Your task to perform on an android device: turn on bluetooth scan Image 0: 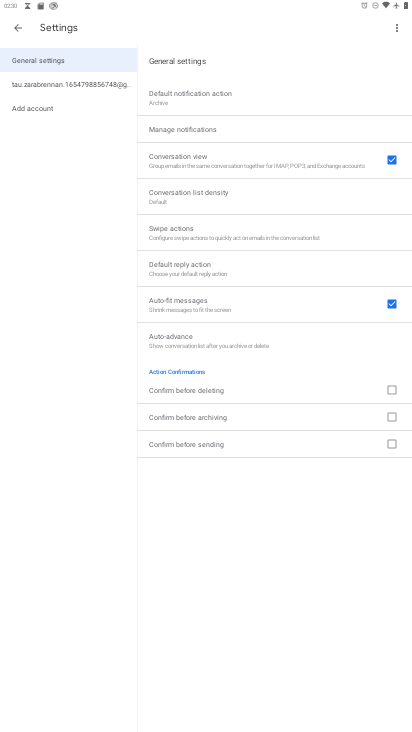
Step 0: press home button
Your task to perform on an android device: turn on bluetooth scan Image 1: 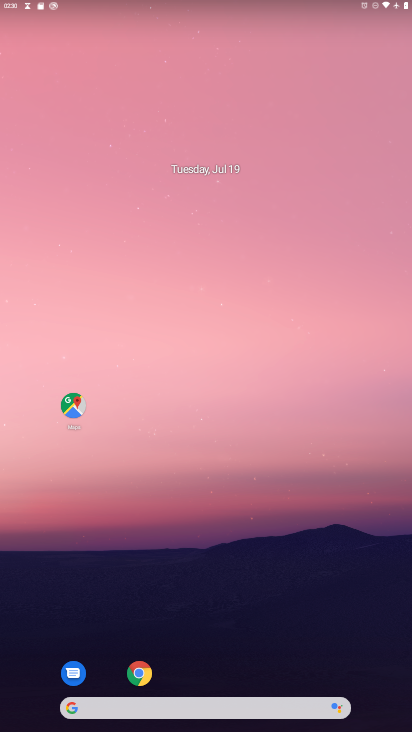
Step 1: drag from (234, 658) to (233, 333)
Your task to perform on an android device: turn on bluetooth scan Image 2: 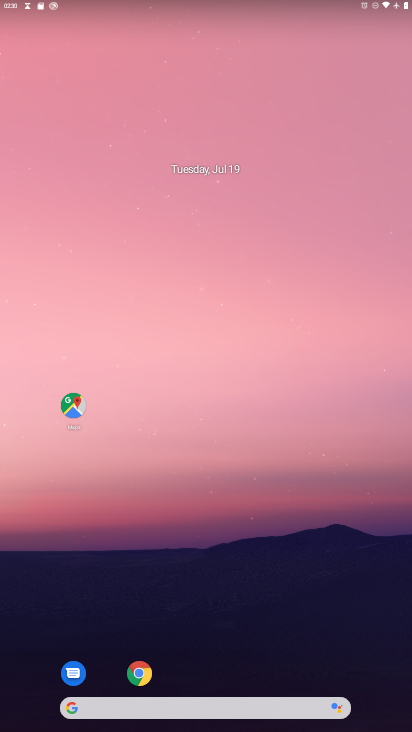
Step 2: drag from (212, 612) to (210, 281)
Your task to perform on an android device: turn on bluetooth scan Image 3: 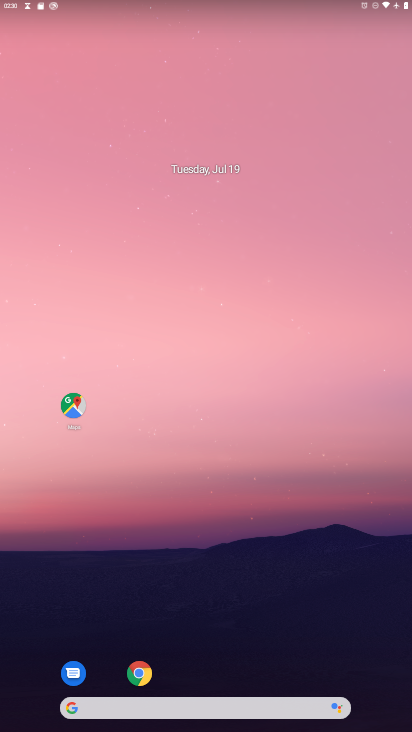
Step 3: drag from (170, 722) to (198, 502)
Your task to perform on an android device: turn on bluetooth scan Image 4: 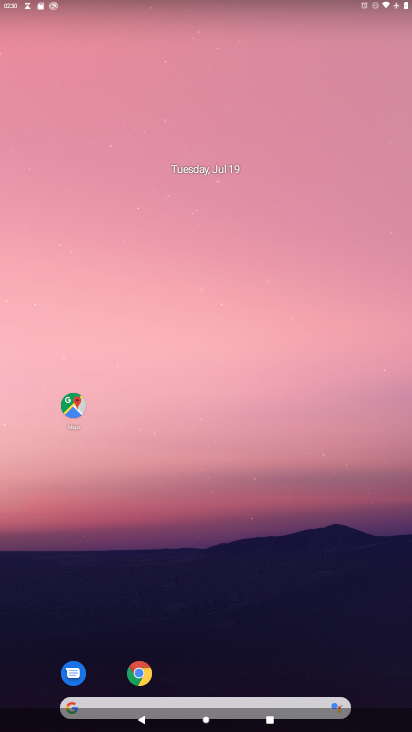
Step 4: drag from (207, 677) to (224, 251)
Your task to perform on an android device: turn on bluetooth scan Image 5: 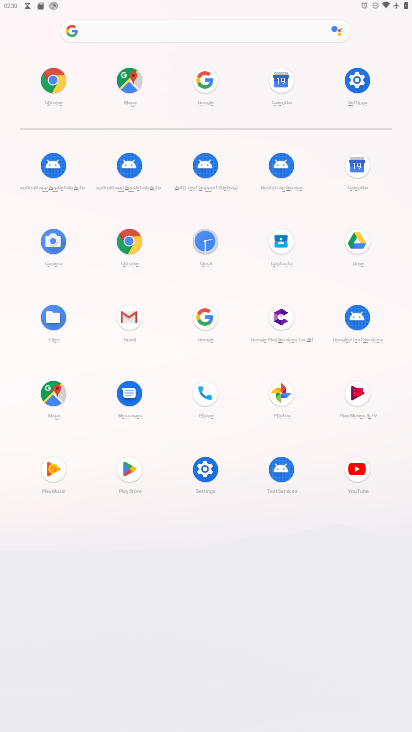
Step 5: click (357, 74)
Your task to perform on an android device: turn on bluetooth scan Image 6: 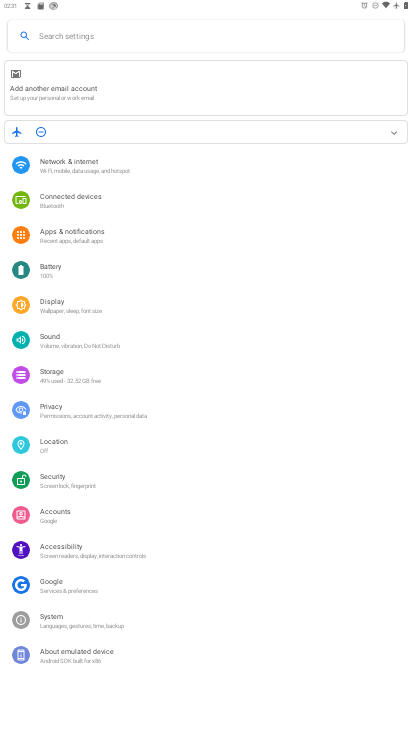
Step 6: click (122, 30)
Your task to perform on an android device: turn on bluetooth scan Image 7: 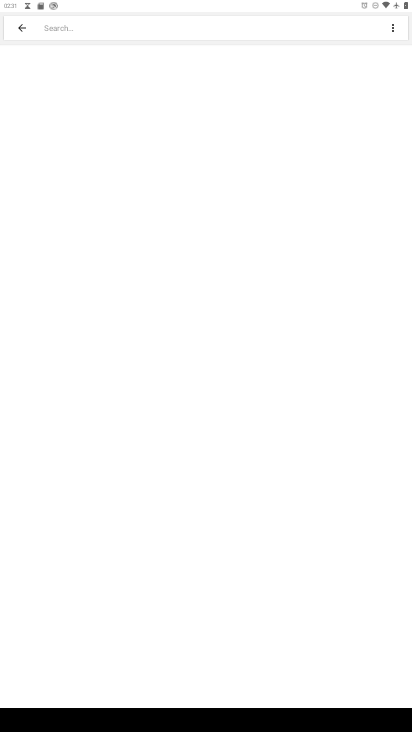
Step 7: type "bluetooth scan "
Your task to perform on an android device: turn on bluetooth scan Image 8: 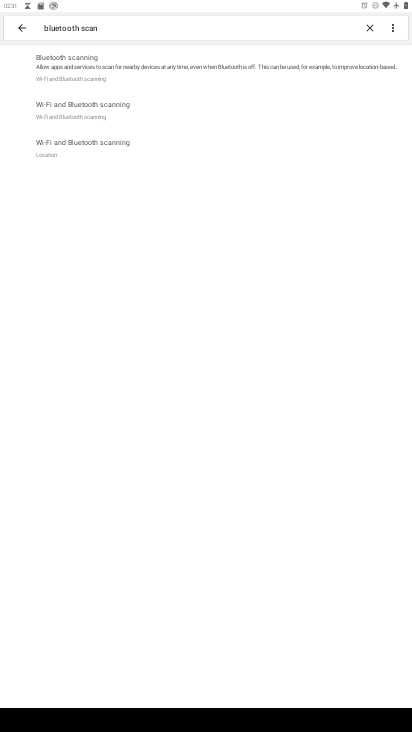
Step 8: click (170, 60)
Your task to perform on an android device: turn on bluetooth scan Image 9: 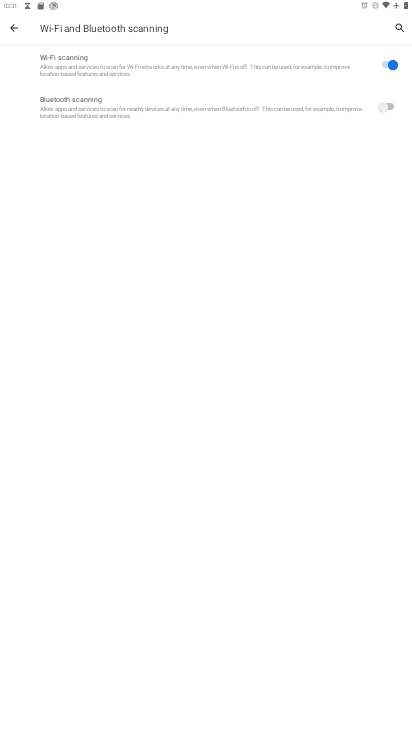
Step 9: click (385, 103)
Your task to perform on an android device: turn on bluetooth scan Image 10: 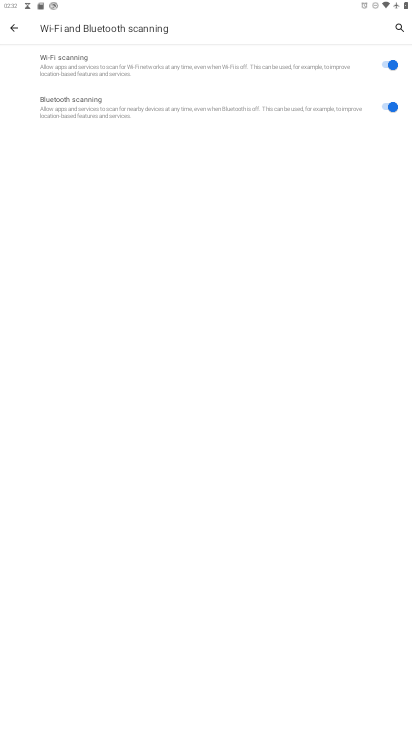
Step 10: task complete